Your task to perform on an android device: Go to privacy settings Image 0: 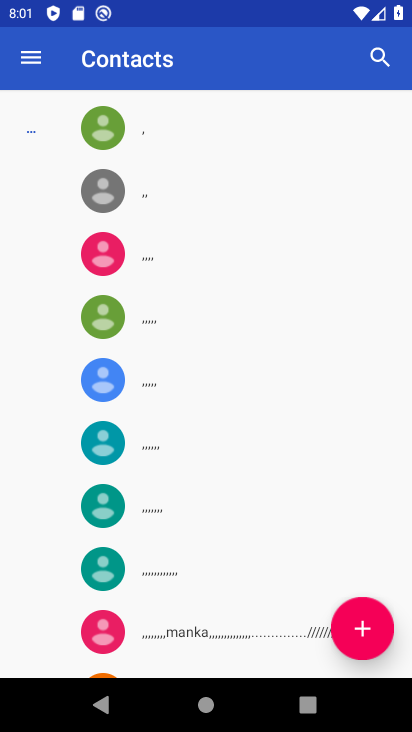
Step 0: press home button
Your task to perform on an android device: Go to privacy settings Image 1: 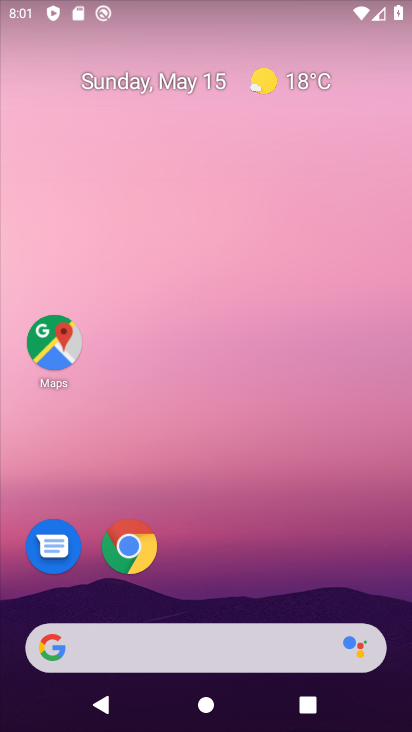
Step 1: drag from (285, 466) to (297, 242)
Your task to perform on an android device: Go to privacy settings Image 2: 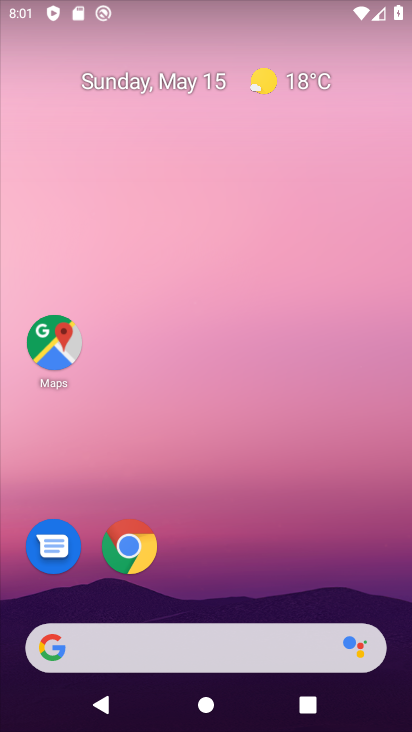
Step 2: drag from (253, 617) to (304, 279)
Your task to perform on an android device: Go to privacy settings Image 3: 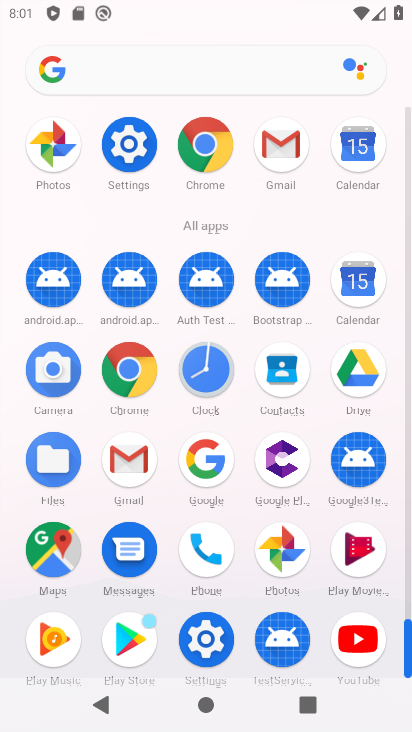
Step 3: click (118, 146)
Your task to perform on an android device: Go to privacy settings Image 4: 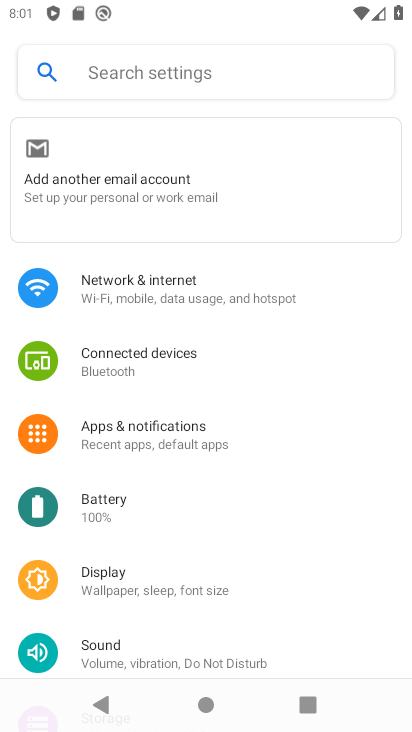
Step 4: drag from (184, 602) to (264, 231)
Your task to perform on an android device: Go to privacy settings Image 5: 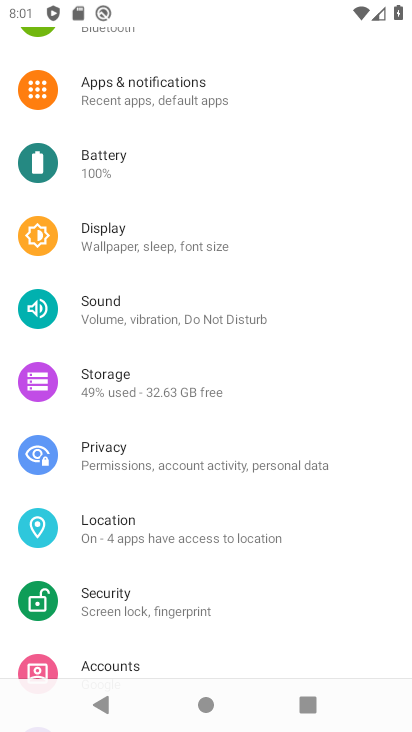
Step 5: click (151, 452)
Your task to perform on an android device: Go to privacy settings Image 6: 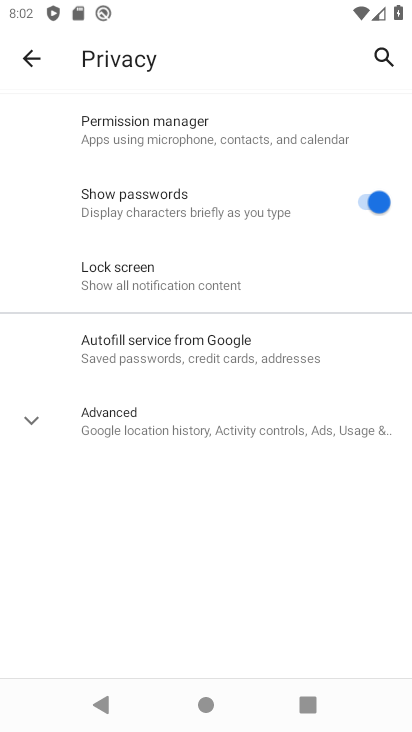
Step 6: task complete